Your task to perform on an android device: Go to settings Image 0: 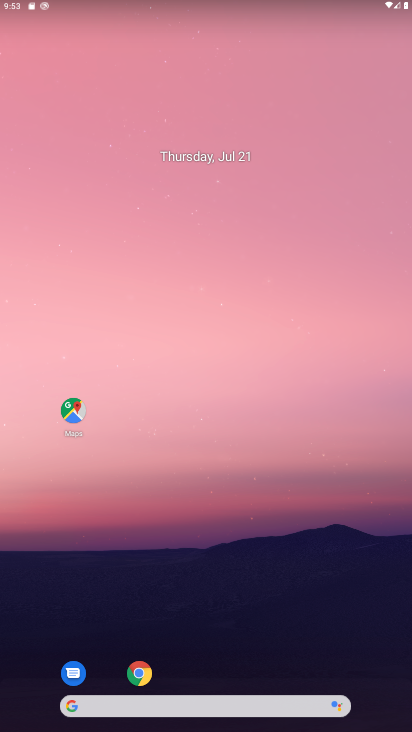
Step 0: drag from (210, 662) to (226, 149)
Your task to perform on an android device: Go to settings Image 1: 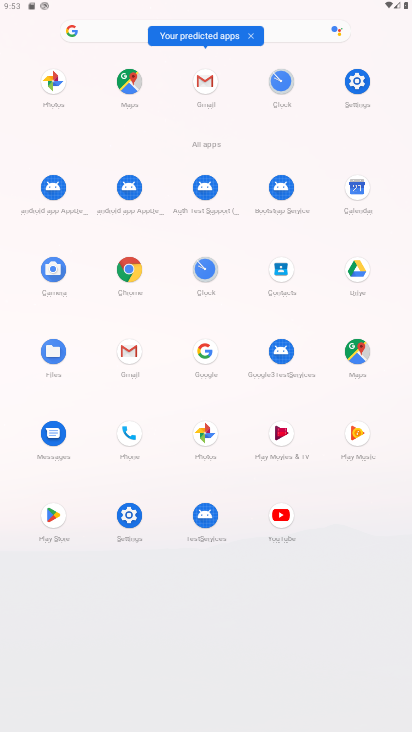
Step 1: click (124, 511)
Your task to perform on an android device: Go to settings Image 2: 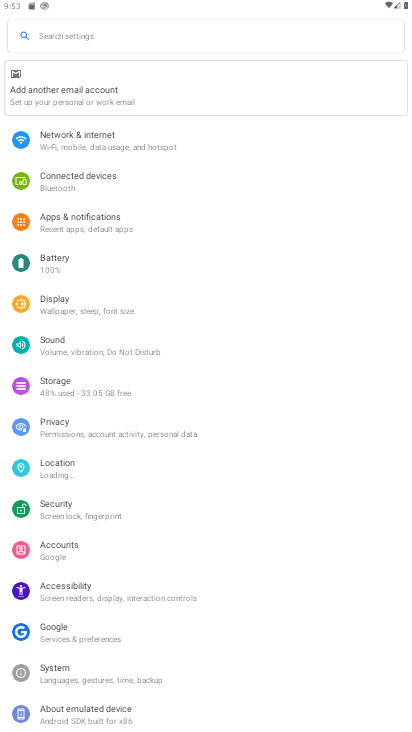
Step 2: task complete